Your task to perform on an android device: turn notification dots off Image 0: 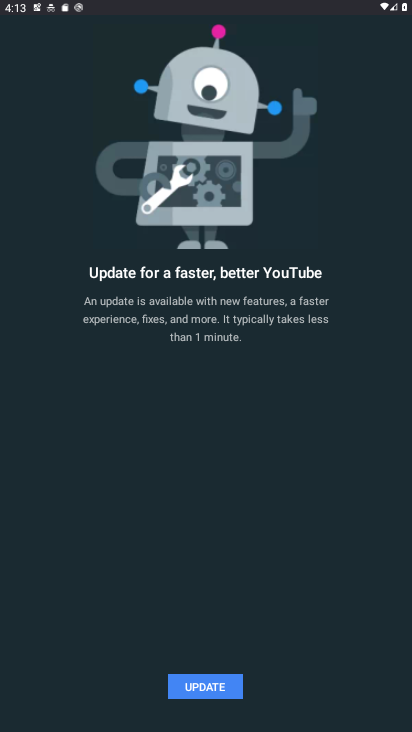
Step 0: press home button
Your task to perform on an android device: turn notification dots off Image 1: 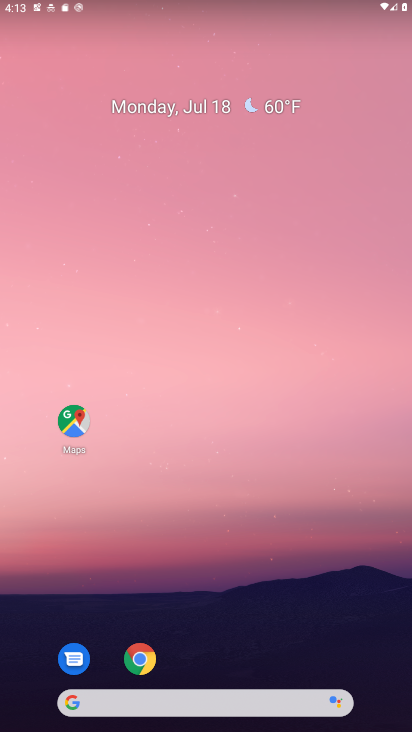
Step 1: drag from (187, 705) to (385, 10)
Your task to perform on an android device: turn notification dots off Image 2: 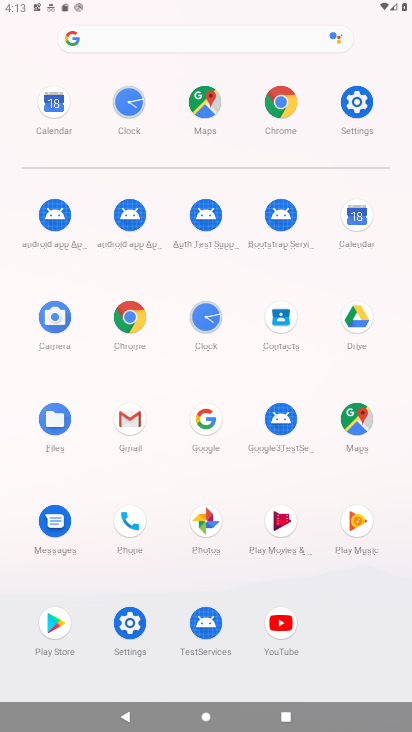
Step 2: click (364, 96)
Your task to perform on an android device: turn notification dots off Image 3: 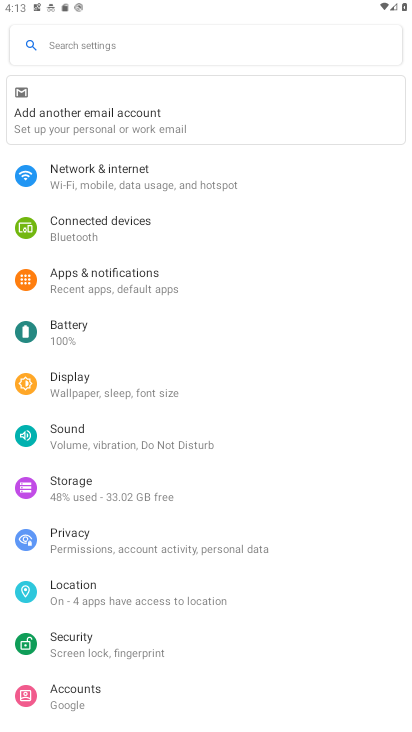
Step 3: click (128, 281)
Your task to perform on an android device: turn notification dots off Image 4: 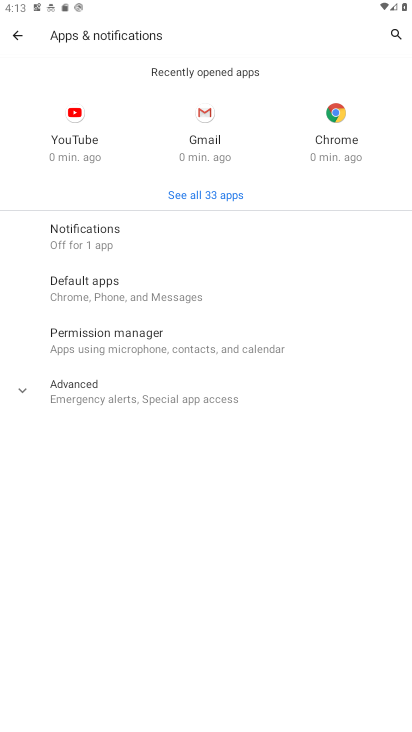
Step 4: click (90, 236)
Your task to perform on an android device: turn notification dots off Image 5: 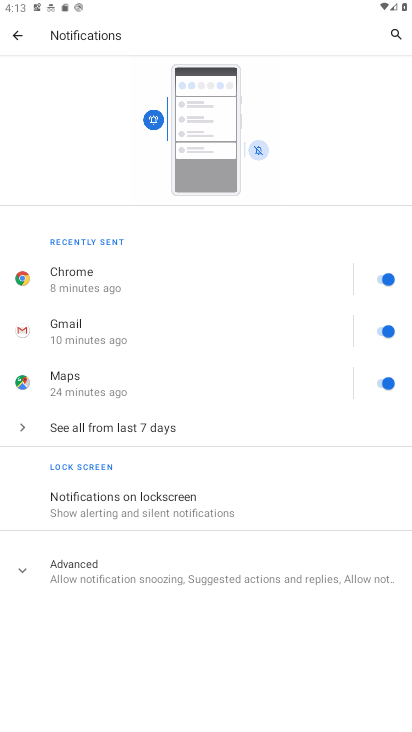
Step 5: click (124, 570)
Your task to perform on an android device: turn notification dots off Image 6: 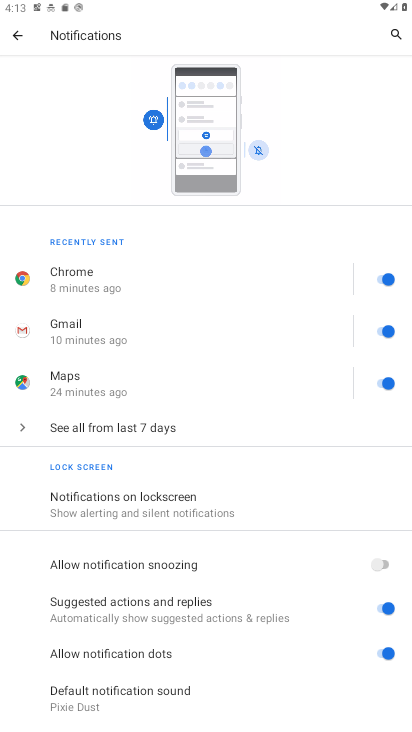
Step 6: click (386, 651)
Your task to perform on an android device: turn notification dots off Image 7: 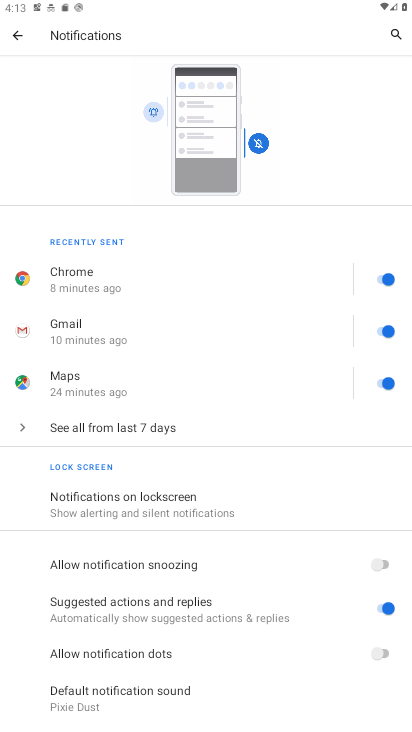
Step 7: task complete